Your task to perform on an android device: change the clock style Image 0: 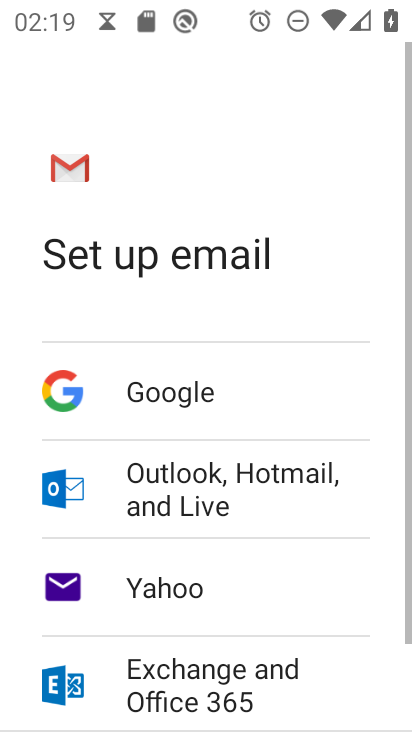
Step 0: press home button
Your task to perform on an android device: change the clock style Image 1: 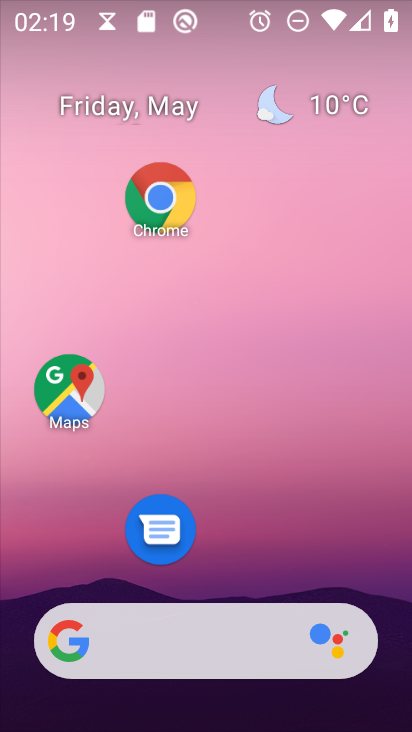
Step 1: drag from (265, 561) to (309, 109)
Your task to perform on an android device: change the clock style Image 2: 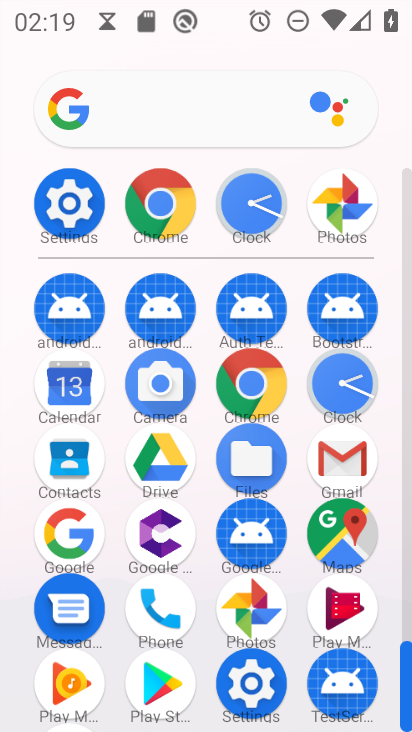
Step 2: click (348, 385)
Your task to perform on an android device: change the clock style Image 3: 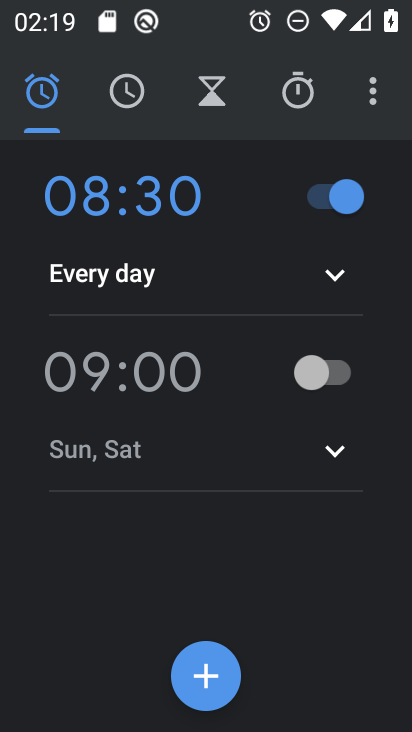
Step 3: click (352, 82)
Your task to perform on an android device: change the clock style Image 4: 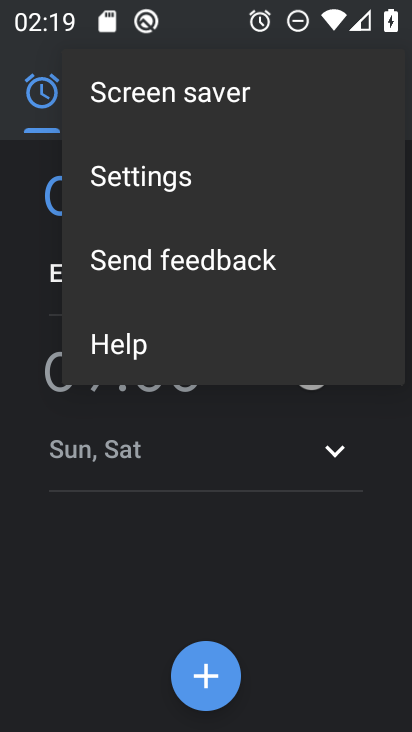
Step 4: click (178, 170)
Your task to perform on an android device: change the clock style Image 5: 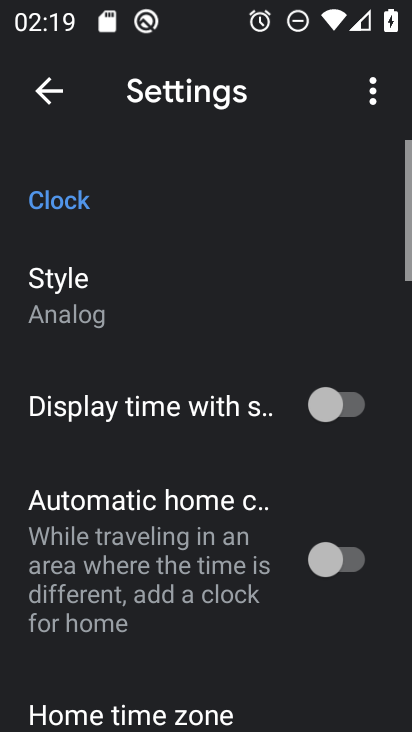
Step 5: click (85, 315)
Your task to perform on an android device: change the clock style Image 6: 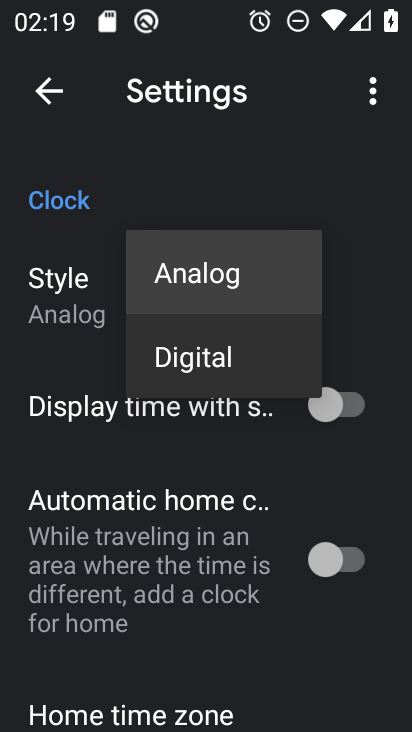
Step 6: click (180, 349)
Your task to perform on an android device: change the clock style Image 7: 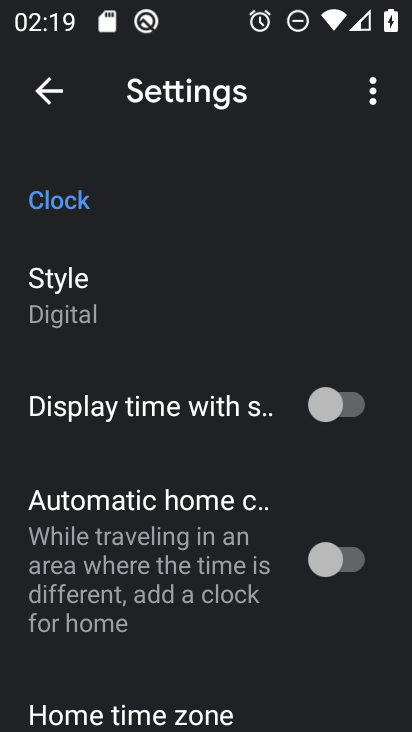
Step 7: task complete